Your task to perform on an android device: turn off translation in the chrome app Image 0: 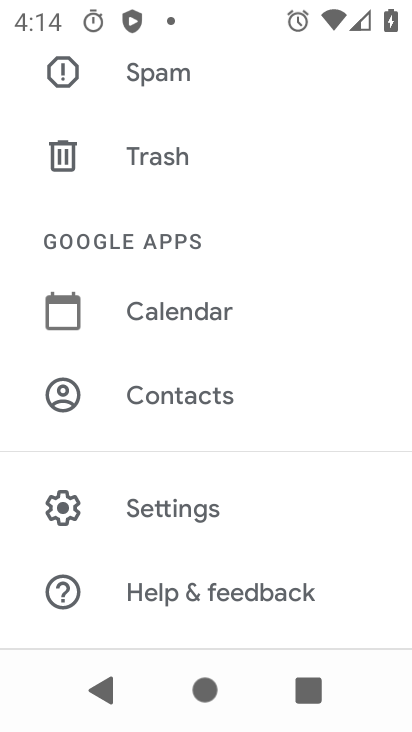
Step 0: press home button
Your task to perform on an android device: turn off translation in the chrome app Image 1: 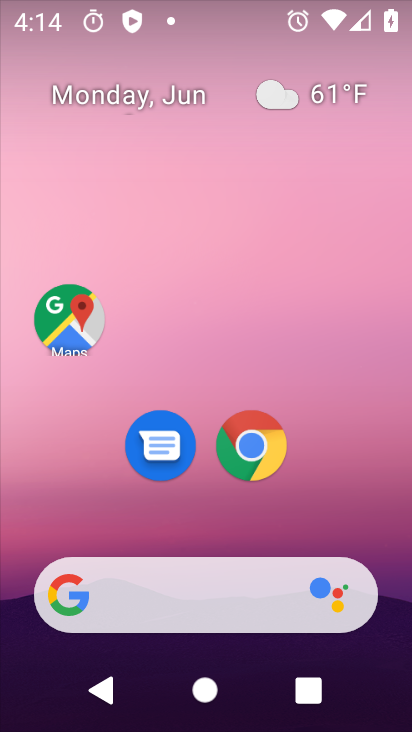
Step 1: click (261, 453)
Your task to perform on an android device: turn off translation in the chrome app Image 2: 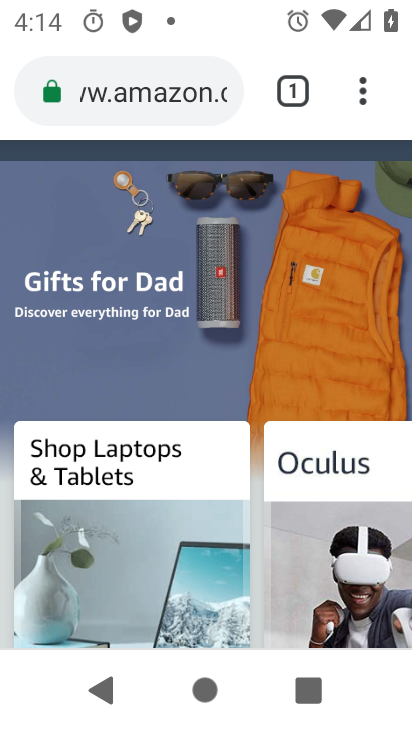
Step 2: click (356, 97)
Your task to perform on an android device: turn off translation in the chrome app Image 3: 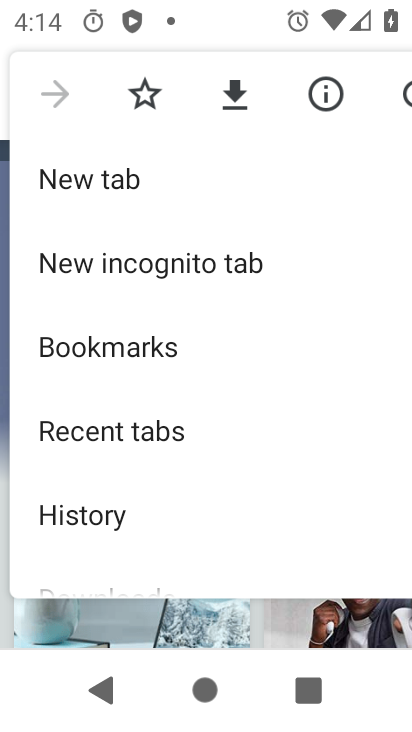
Step 3: drag from (137, 552) to (147, 452)
Your task to perform on an android device: turn off translation in the chrome app Image 4: 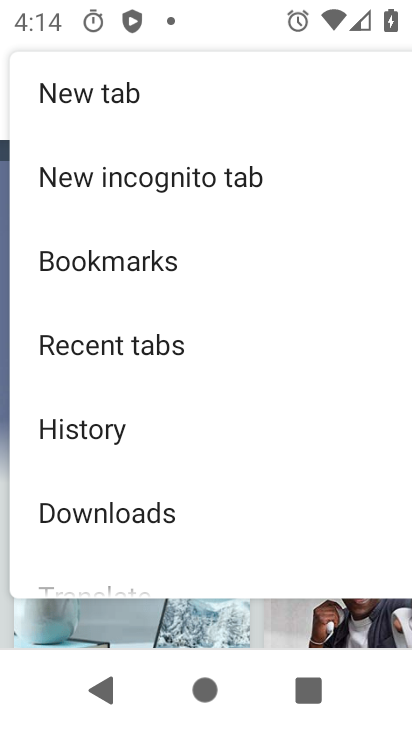
Step 4: drag from (175, 520) to (209, 305)
Your task to perform on an android device: turn off translation in the chrome app Image 5: 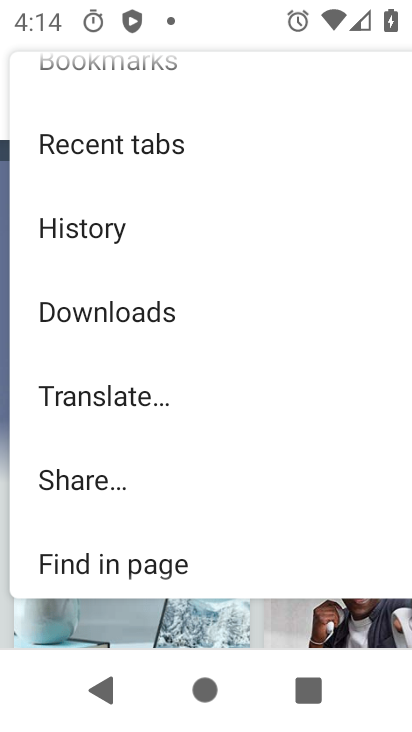
Step 5: drag from (97, 563) to (190, 264)
Your task to perform on an android device: turn off translation in the chrome app Image 6: 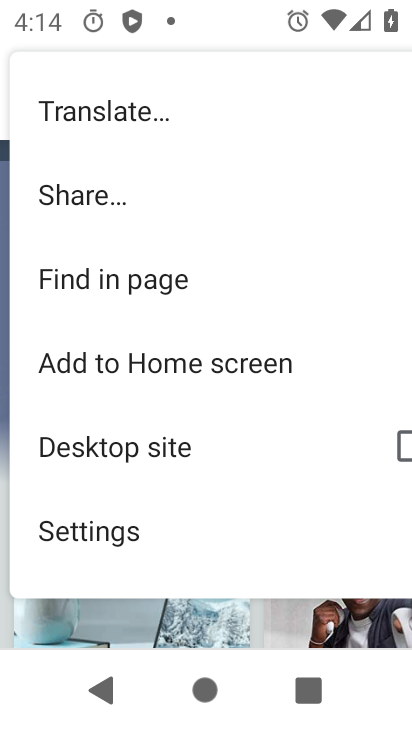
Step 6: click (132, 531)
Your task to perform on an android device: turn off translation in the chrome app Image 7: 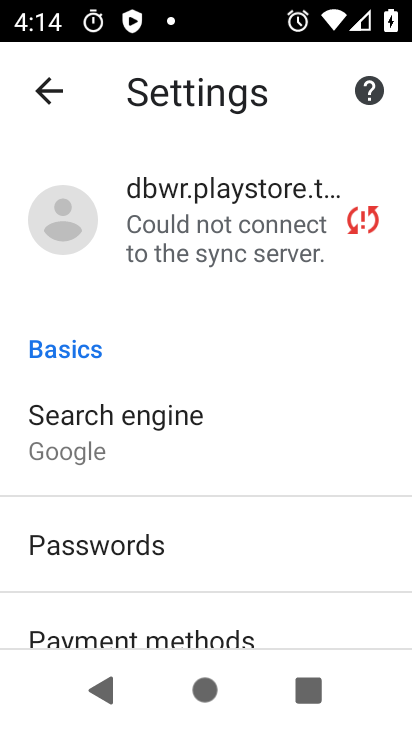
Step 7: drag from (178, 582) to (217, 466)
Your task to perform on an android device: turn off translation in the chrome app Image 8: 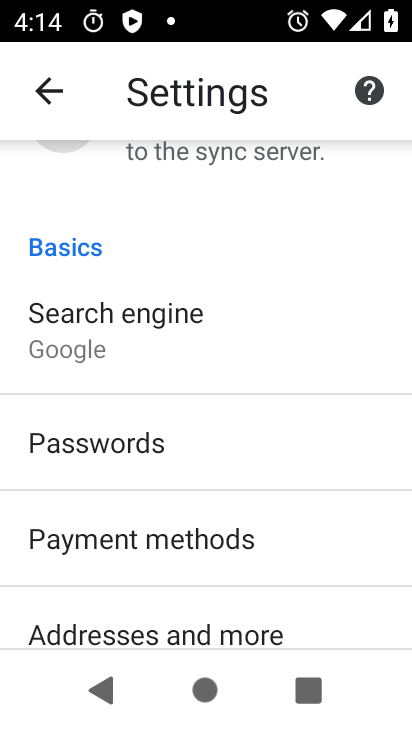
Step 8: drag from (226, 595) to (257, 189)
Your task to perform on an android device: turn off translation in the chrome app Image 9: 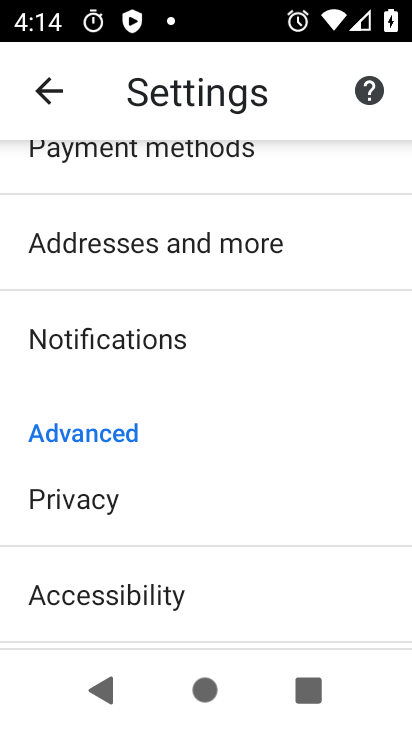
Step 9: drag from (169, 510) to (169, 311)
Your task to perform on an android device: turn off translation in the chrome app Image 10: 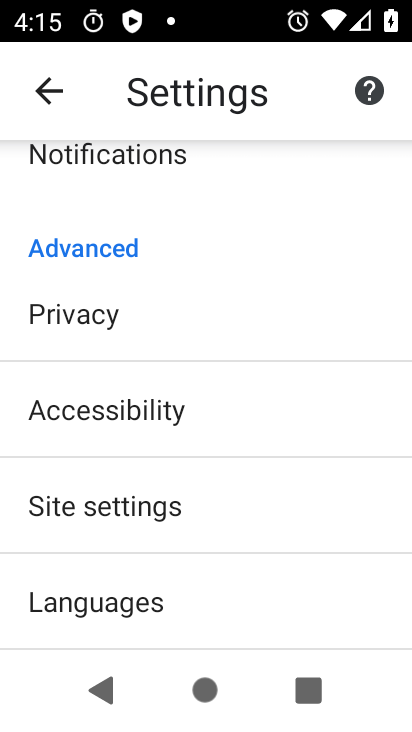
Step 10: click (100, 612)
Your task to perform on an android device: turn off translation in the chrome app Image 11: 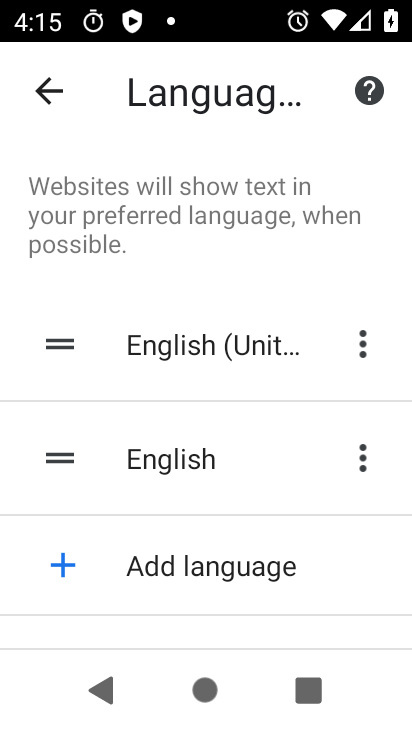
Step 11: drag from (162, 596) to (250, 283)
Your task to perform on an android device: turn off translation in the chrome app Image 12: 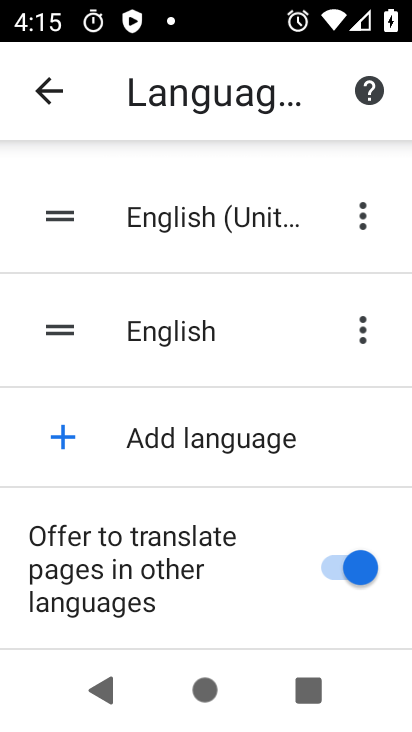
Step 12: click (326, 574)
Your task to perform on an android device: turn off translation in the chrome app Image 13: 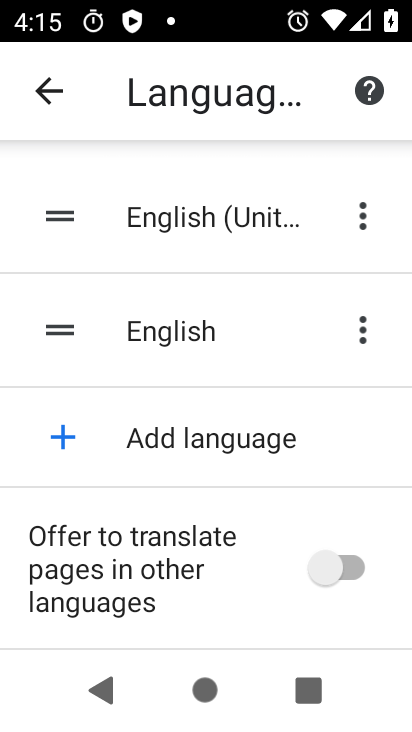
Step 13: task complete